Your task to perform on an android device: turn off data saver in the chrome app Image 0: 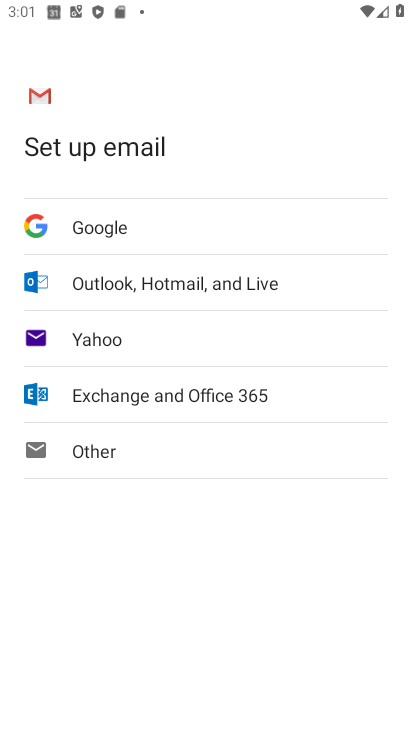
Step 0: press home button
Your task to perform on an android device: turn off data saver in the chrome app Image 1: 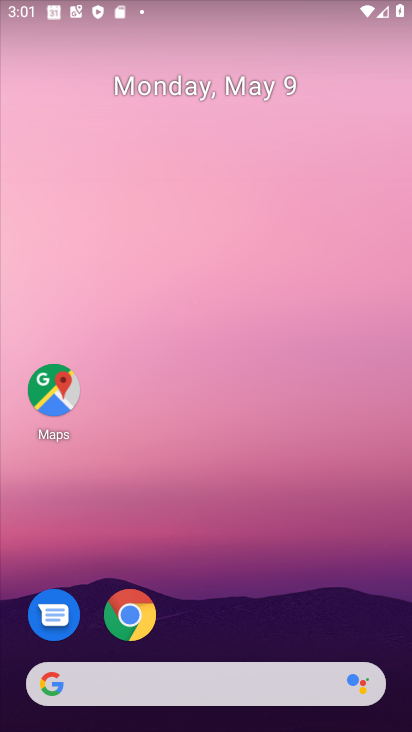
Step 1: drag from (244, 383) to (241, 226)
Your task to perform on an android device: turn off data saver in the chrome app Image 2: 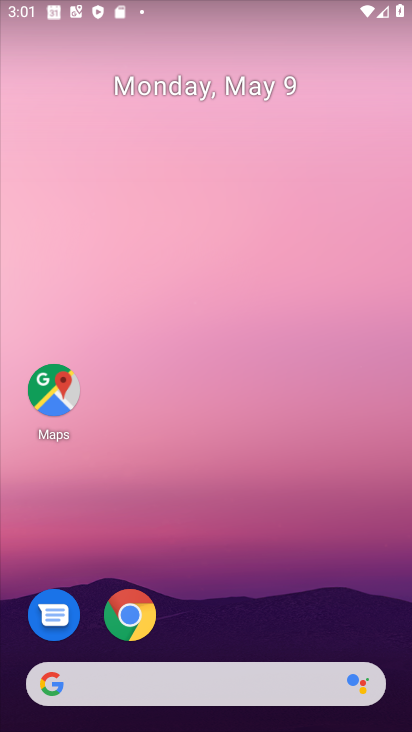
Step 2: drag from (188, 645) to (201, 261)
Your task to perform on an android device: turn off data saver in the chrome app Image 3: 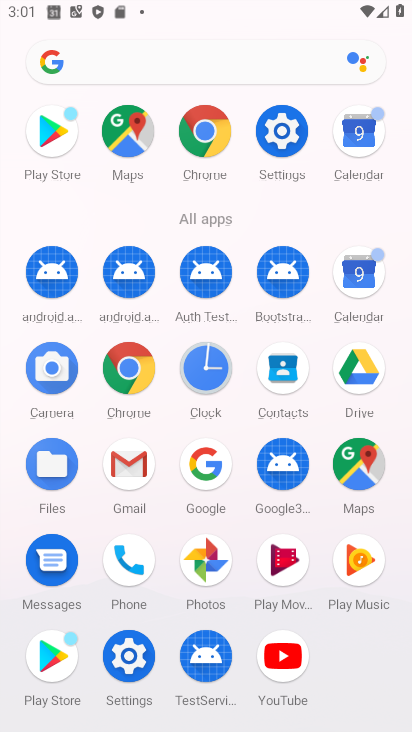
Step 3: click (193, 124)
Your task to perform on an android device: turn off data saver in the chrome app Image 4: 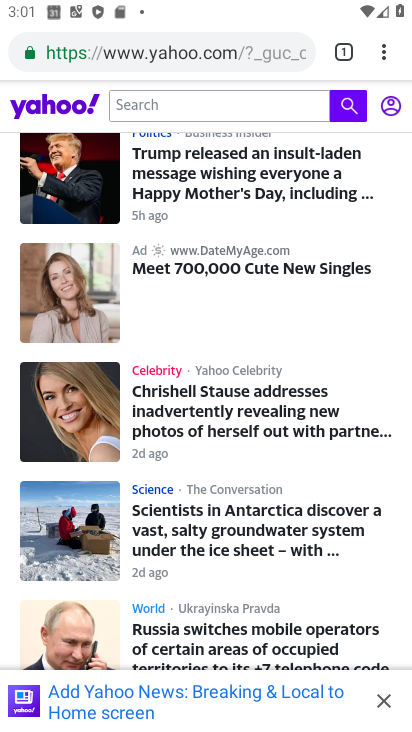
Step 4: click (371, 49)
Your task to perform on an android device: turn off data saver in the chrome app Image 5: 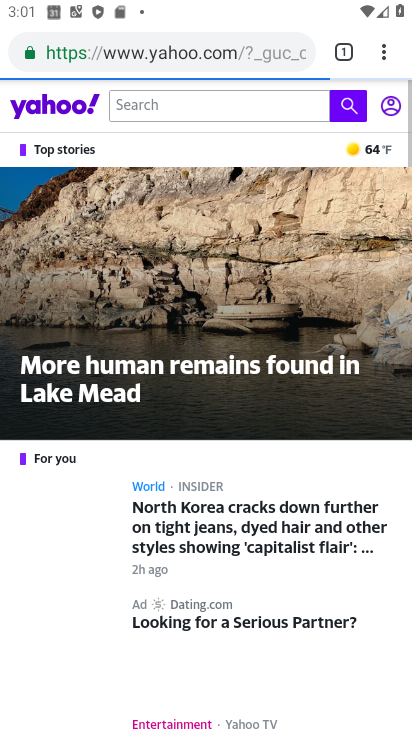
Step 5: click (368, 44)
Your task to perform on an android device: turn off data saver in the chrome app Image 6: 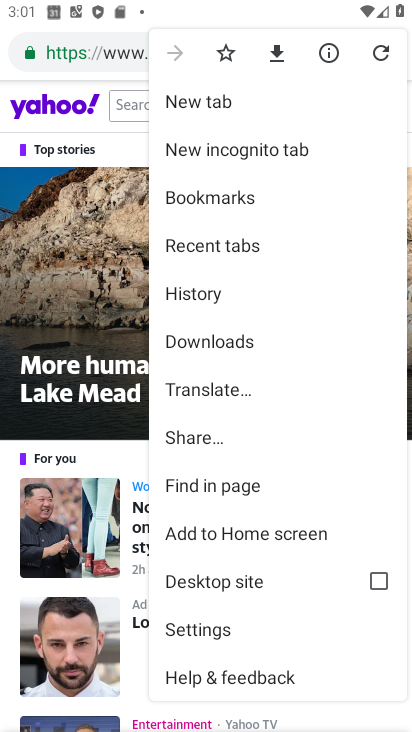
Step 6: click (235, 635)
Your task to perform on an android device: turn off data saver in the chrome app Image 7: 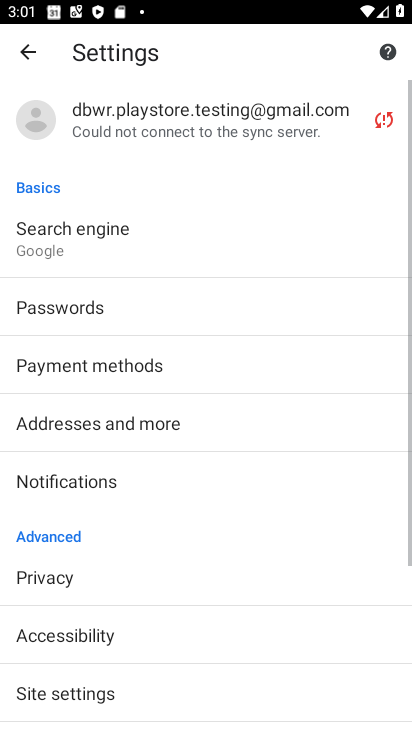
Step 7: drag from (158, 658) to (163, 361)
Your task to perform on an android device: turn off data saver in the chrome app Image 8: 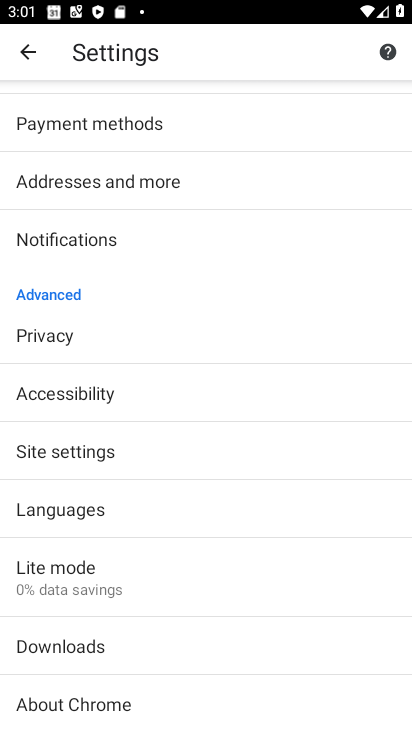
Step 8: click (106, 567)
Your task to perform on an android device: turn off data saver in the chrome app Image 9: 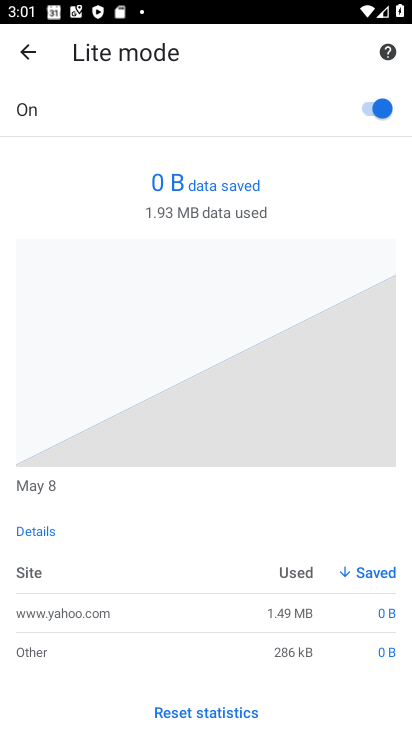
Step 9: click (383, 102)
Your task to perform on an android device: turn off data saver in the chrome app Image 10: 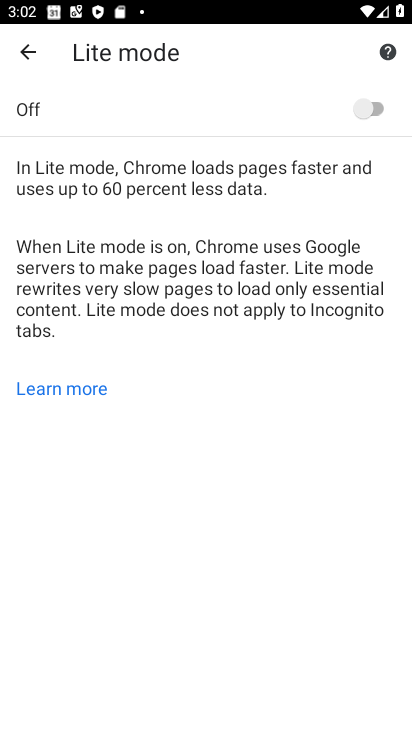
Step 10: task complete